Your task to perform on an android device: Open Reddit.com Image 0: 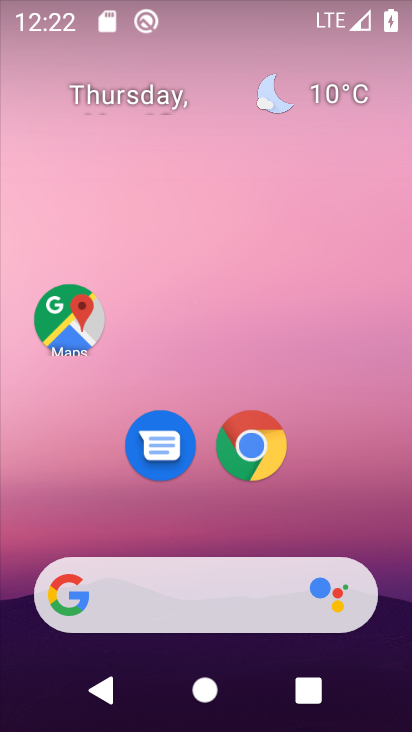
Step 0: click (262, 446)
Your task to perform on an android device: Open Reddit.com Image 1: 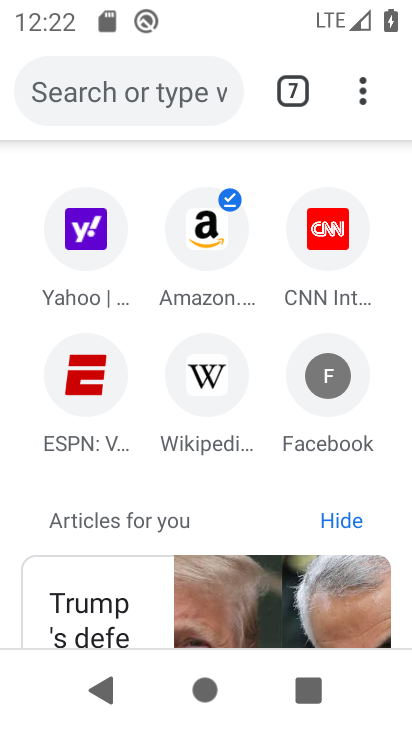
Step 1: click (117, 95)
Your task to perform on an android device: Open Reddit.com Image 2: 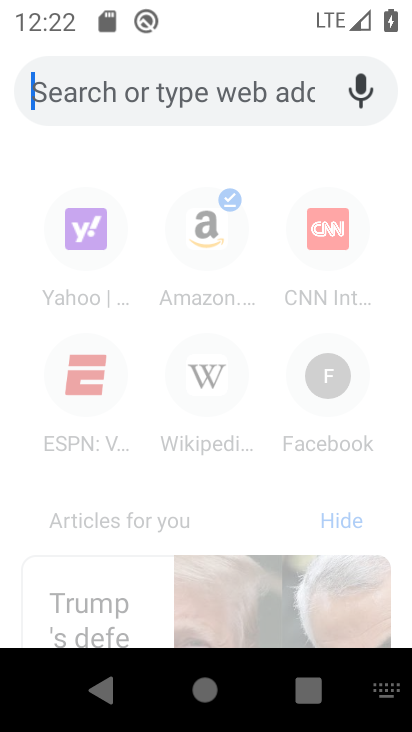
Step 2: type "reddit.com"
Your task to perform on an android device: Open Reddit.com Image 3: 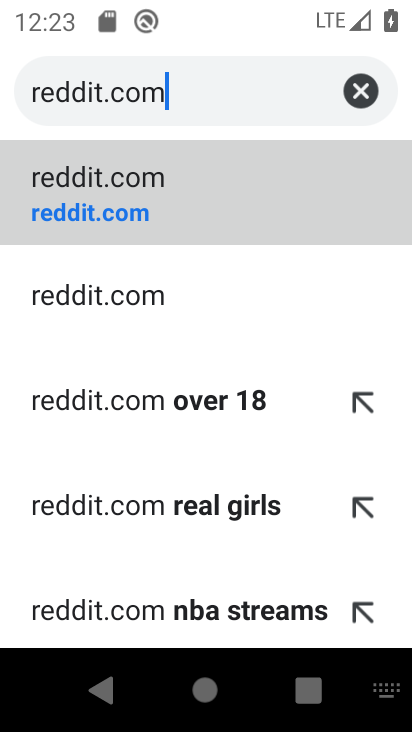
Step 3: click (211, 184)
Your task to perform on an android device: Open Reddit.com Image 4: 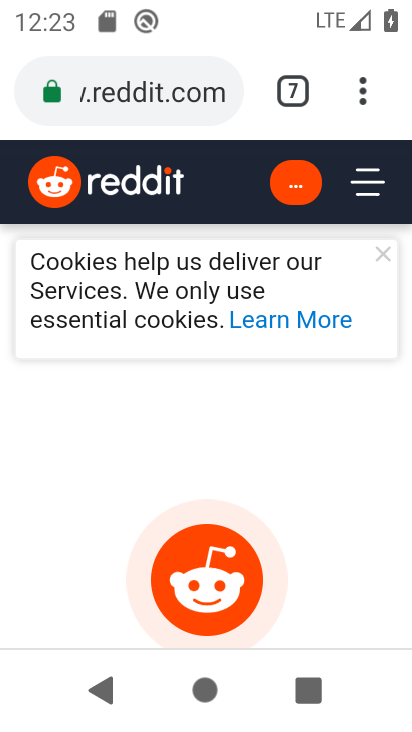
Step 4: task complete